Your task to perform on an android device: see creations saved in the google photos Image 0: 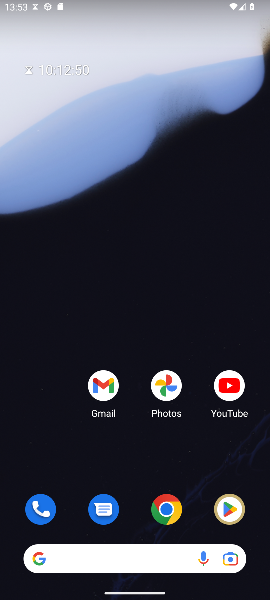
Step 0: press home button
Your task to perform on an android device: see creations saved in the google photos Image 1: 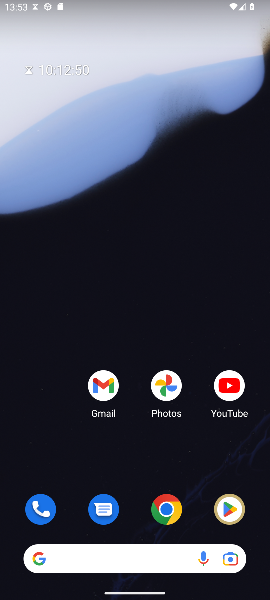
Step 1: click (163, 386)
Your task to perform on an android device: see creations saved in the google photos Image 2: 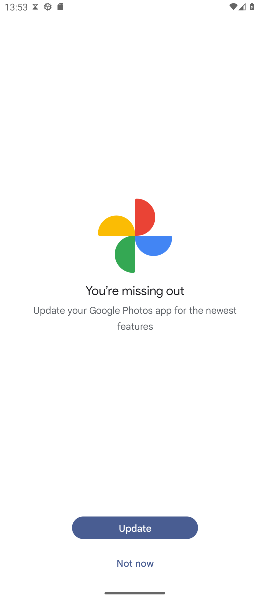
Step 2: click (143, 530)
Your task to perform on an android device: see creations saved in the google photos Image 3: 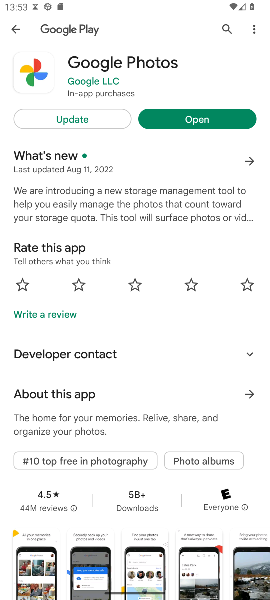
Step 3: click (95, 129)
Your task to perform on an android device: see creations saved in the google photos Image 4: 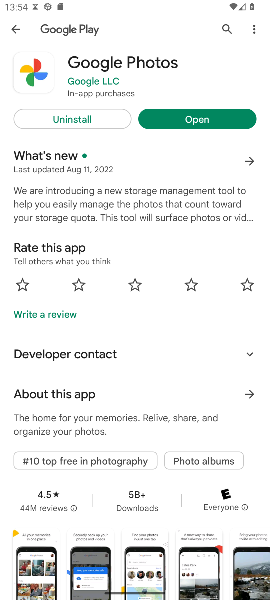
Step 4: click (152, 122)
Your task to perform on an android device: see creations saved in the google photos Image 5: 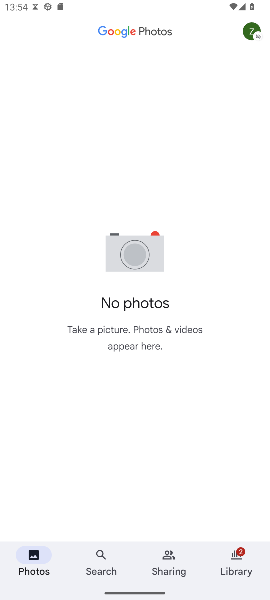
Step 5: click (103, 552)
Your task to perform on an android device: see creations saved in the google photos Image 6: 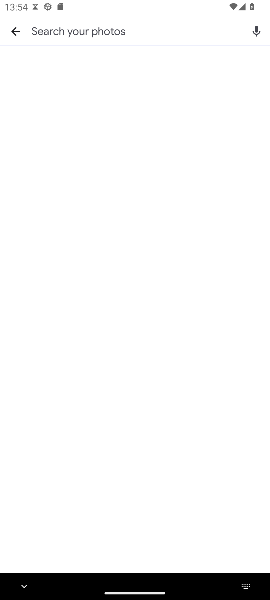
Step 6: click (115, 27)
Your task to perform on an android device: see creations saved in the google photos Image 7: 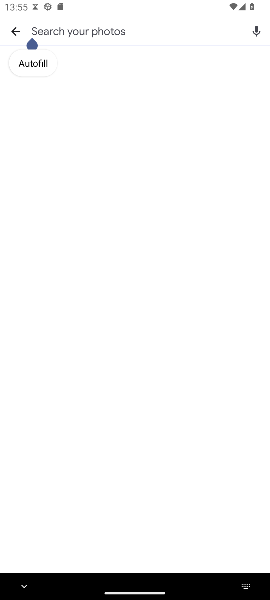
Step 7: click (115, 27)
Your task to perform on an android device: see creations saved in the google photos Image 8: 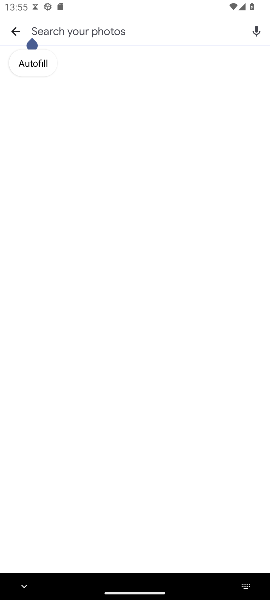
Step 8: click (87, 123)
Your task to perform on an android device: see creations saved in the google photos Image 9: 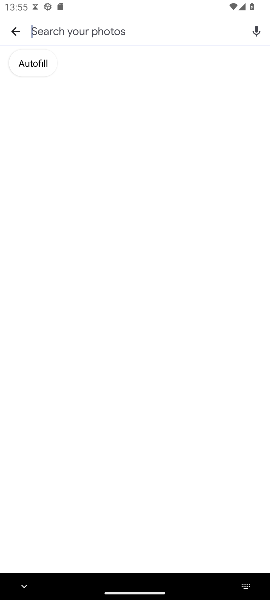
Step 9: task complete